Your task to perform on an android device: open chrome privacy settings Image 0: 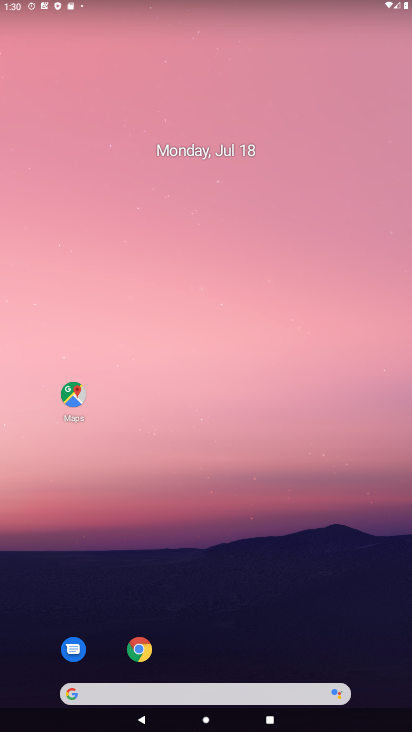
Step 0: click (142, 648)
Your task to perform on an android device: open chrome privacy settings Image 1: 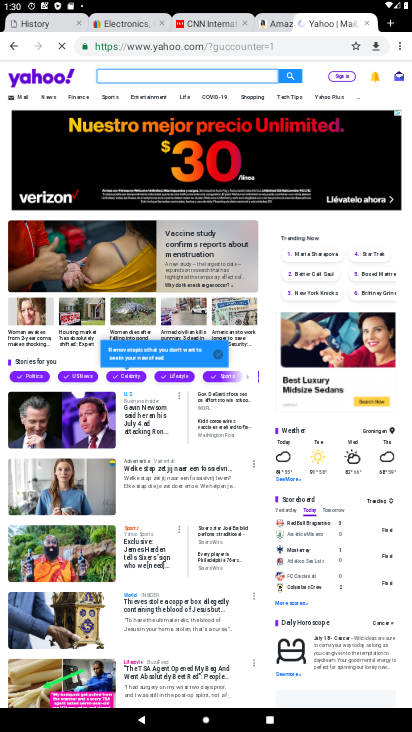
Step 1: click (399, 51)
Your task to perform on an android device: open chrome privacy settings Image 2: 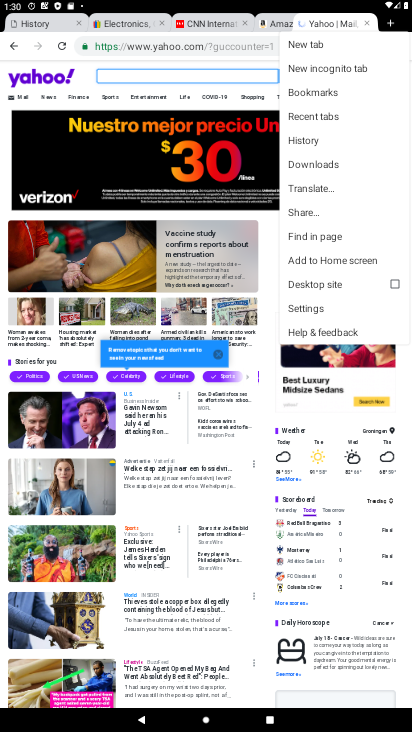
Step 2: click (303, 303)
Your task to perform on an android device: open chrome privacy settings Image 3: 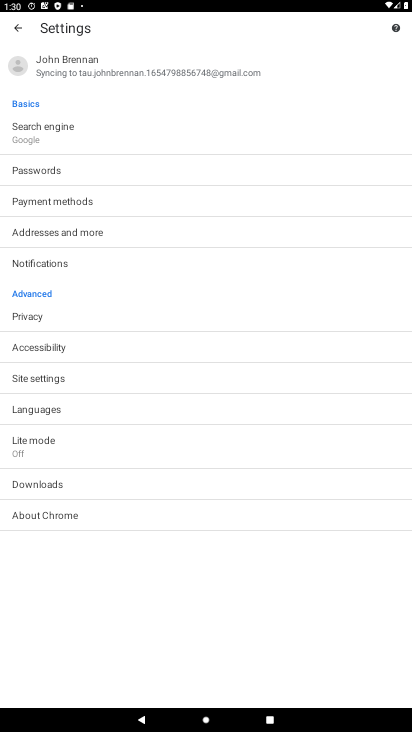
Step 3: click (19, 316)
Your task to perform on an android device: open chrome privacy settings Image 4: 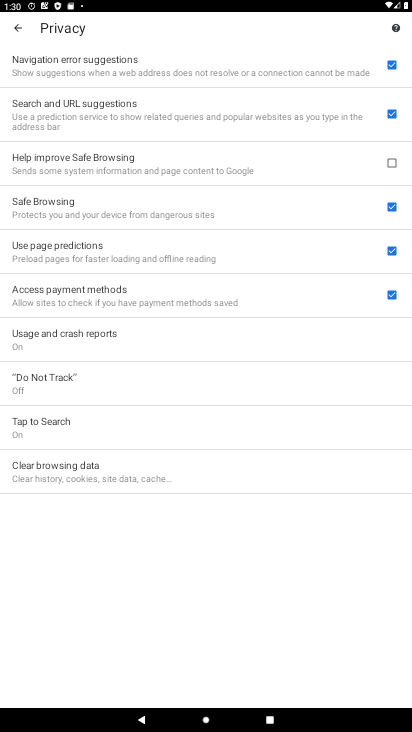
Step 4: task complete